Your task to perform on an android device: move an email to a new category in the gmail app Image 0: 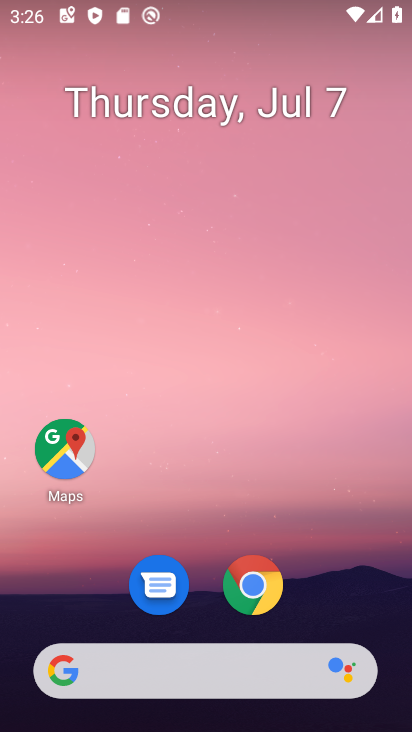
Step 0: drag from (269, 499) to (251, 60)
Your task to perform on an android device: move an email to a new category in the gmail app Image 1: 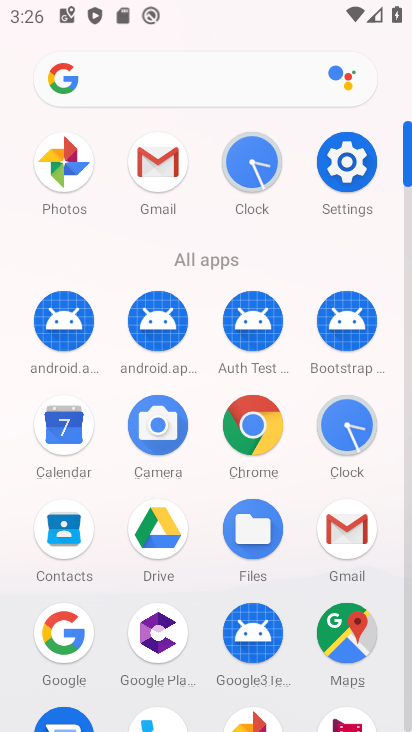
Step 1: click (144, 163)
Your task to perform on an android device: move an email to a new category in the gmail app Image 2: 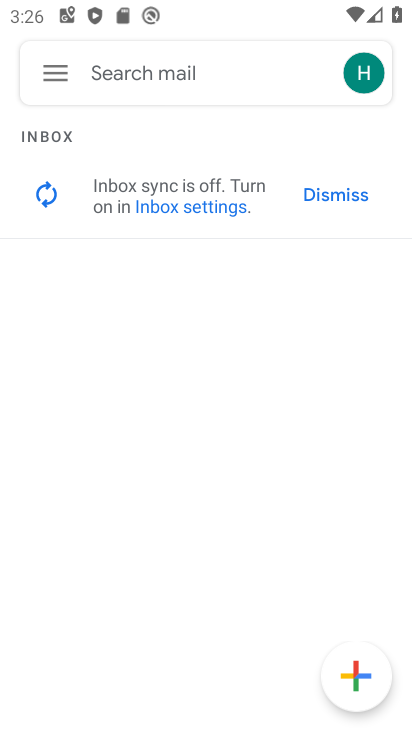
Step 2: click (54, 66)
Your task to perform on an android device: move an email to a new category in the gmail app Image 3: 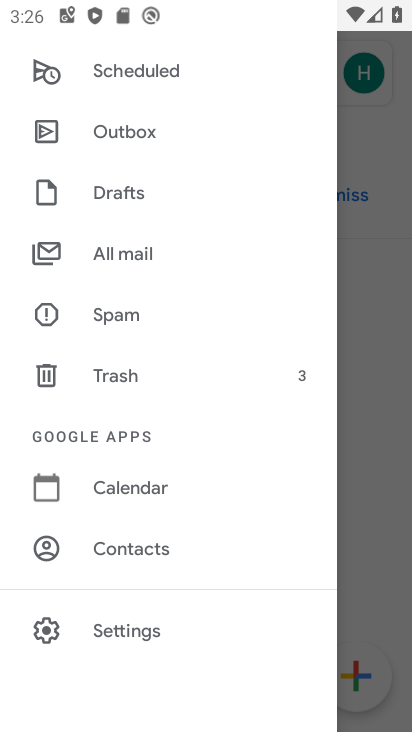
Step 3: click (124, 248)
Your task to perform on an android device: move an email to a new category in the gmail app Image 4: 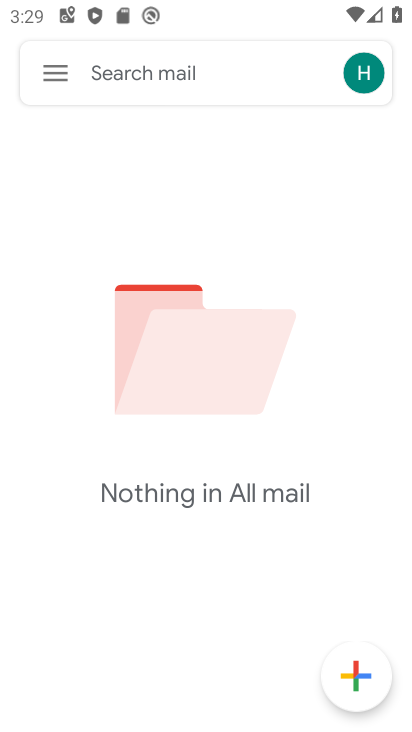
Step 4: task complete